Your task to perform on an android device: toggle translation in the chrome app Image 0: 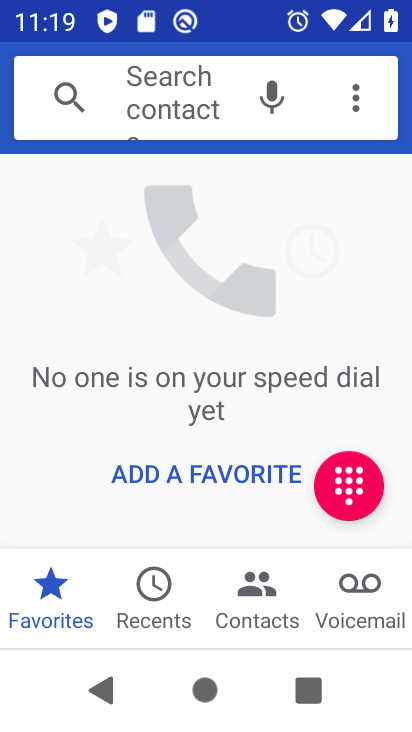
Step 0: press home button
Your task to perform on an android device: toggle translation in the chrome app Image 1: 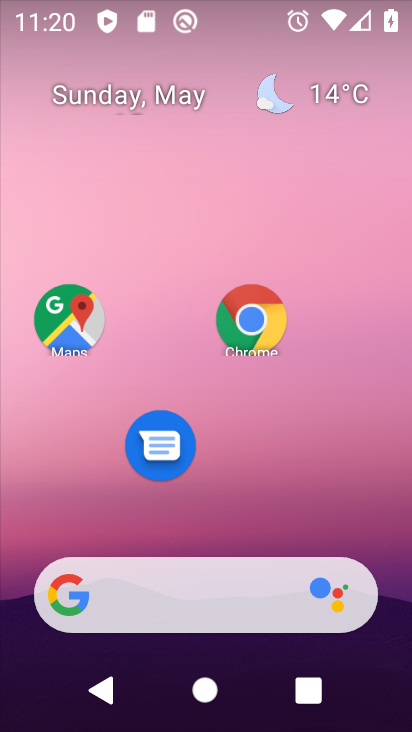
Step 1: click (241, 330)
Your task to perform on an android device: toggle translation in the chrome app Image 2: 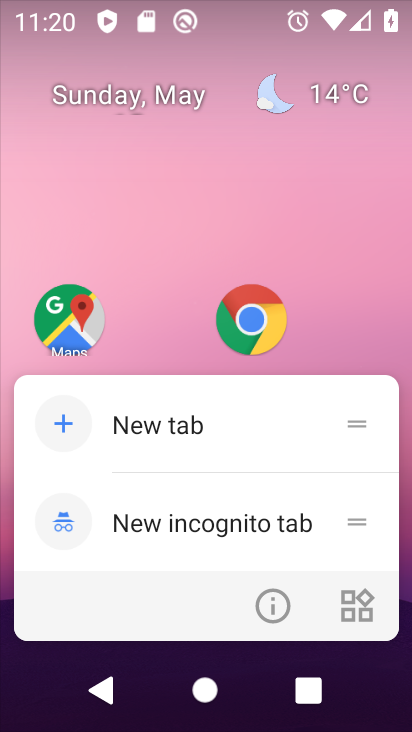
Step 2: click (261, 313)
Your task to perform on an android device: toggle translation in the chrome app Image 3: 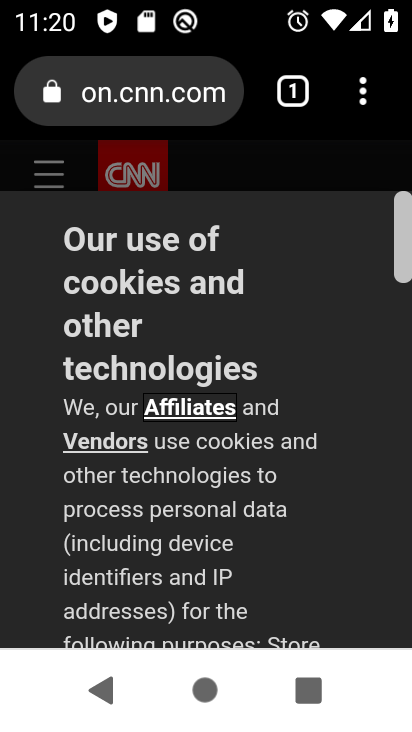
Step 3: drag from (358, 100) to (179, 471)
Your task to perform on an android device: toggle translation in the chrome app Image 4: 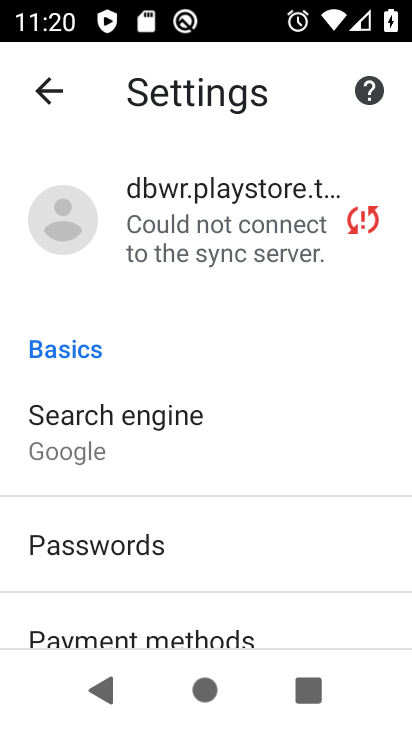
Step 4: drag from (201, 605) to (332, 144)
Your task to perform on an android device: toggle translation in the chrome app Image 5: 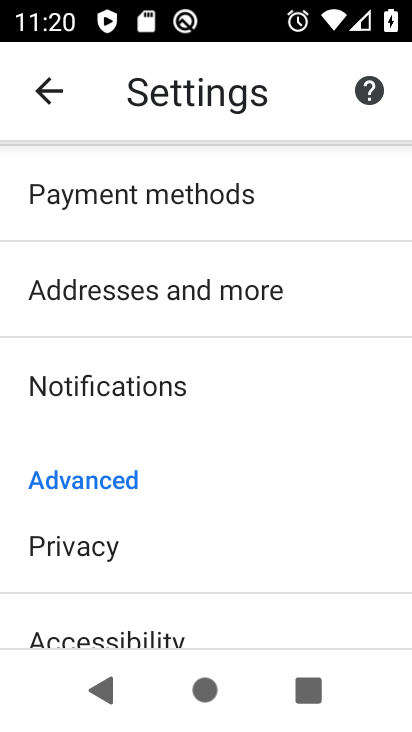
Step 5: drag from (179, 598) to (301, 174)
Your task to perform on an android device: toggle translation in the chrome app Image 6: 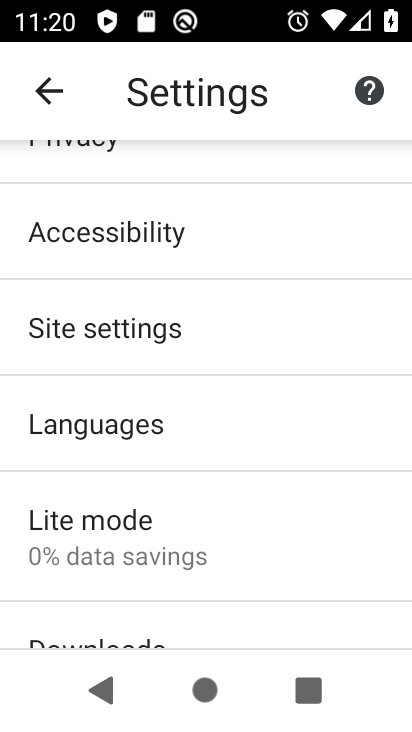
Step 6: click (131, 407)
Your task to perform on an android device: toggle translation in the chrome app Image 7: 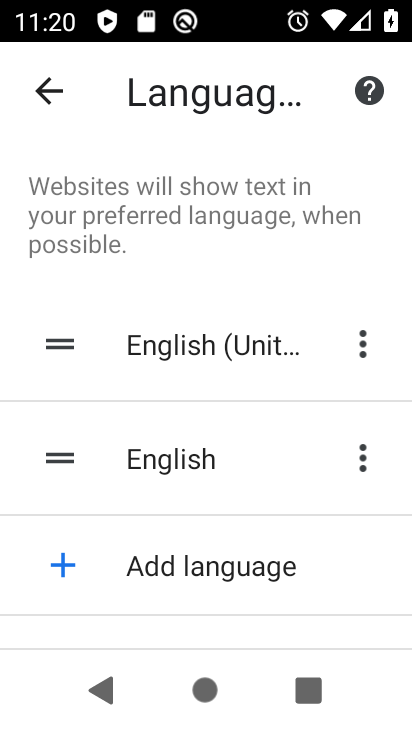
Step 7: drag from (213, 559) to (312, 256)
Your task to perform on an android device: toggle translation in the chrome app Image 8: 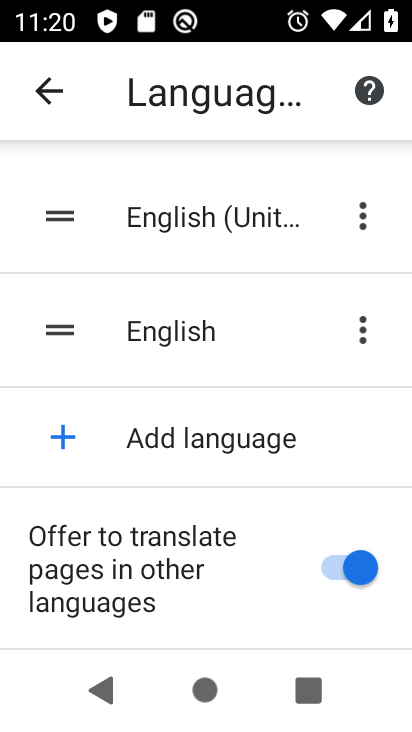
Step 8: click (330, 575)
Your task to perform on an android device: toggle translation in the chrome app Image 9: 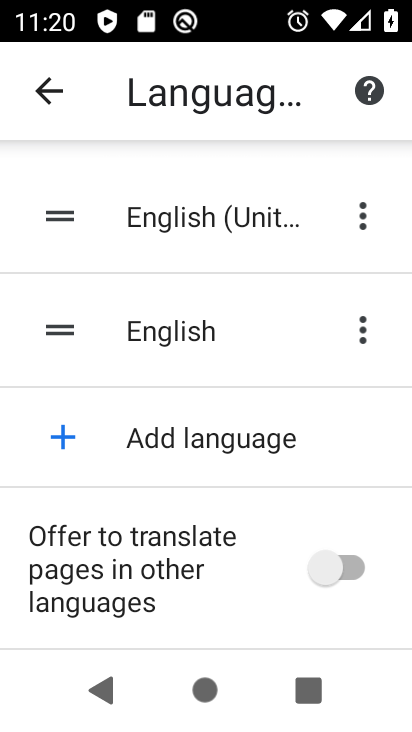
Step 9: task complete